Your task to perform on an android device: move a message to another label in the gmail app Image 0: 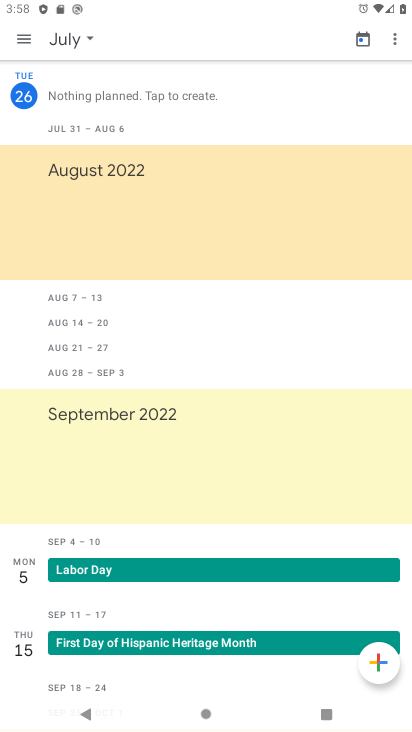
Step 0: press home button
Your task to perform on an android device: move a message to another label in the gmail app Image 1: 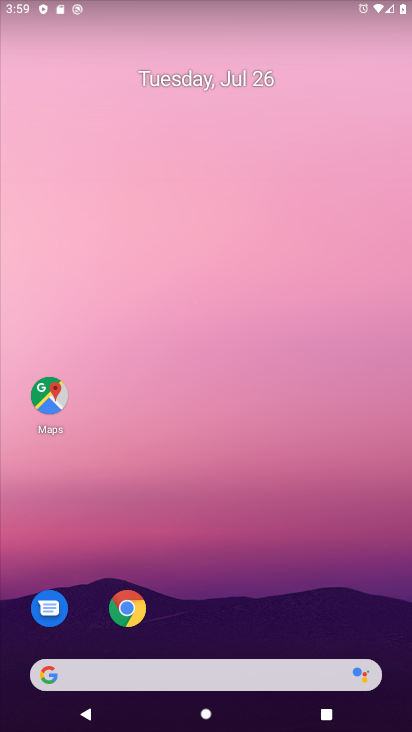
Step 1: drag from (392, 529) to (378, 80)
Your task to perform on an android device: move a message to another label in the gmail app Image 2: 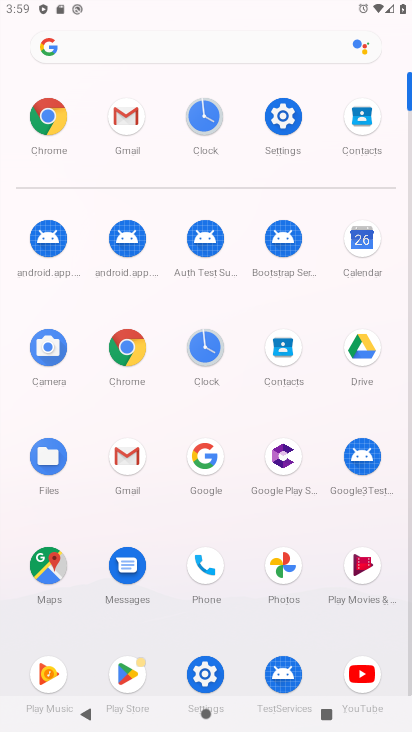
Step 2: click (132, 458)
Your task to perform on an android device: move a message to another label in the gmail app Image 3: 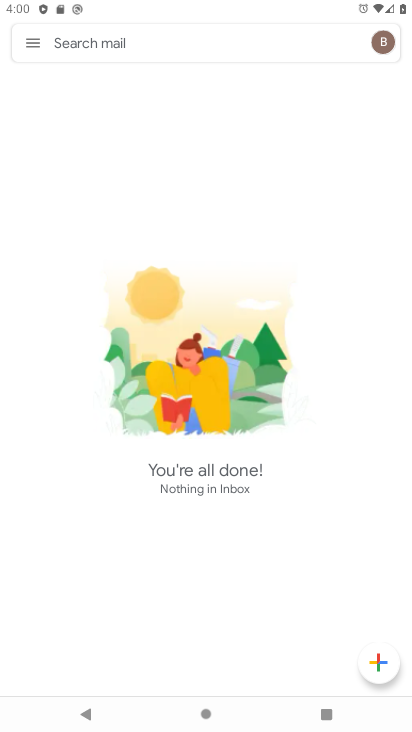
Step 3: click (35, 41)
Your task to perform on an android device: move a message to another label in the gmail app Image 4: 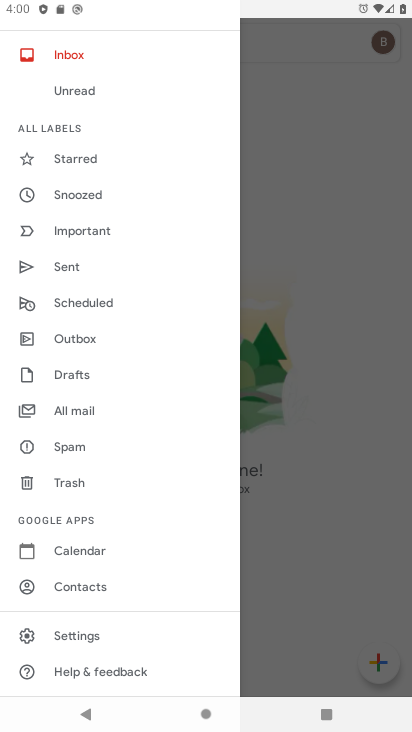
Step 4: click (326, 471)
Your task to perform on an android device: move a message to another label in the gmail app Image 5: 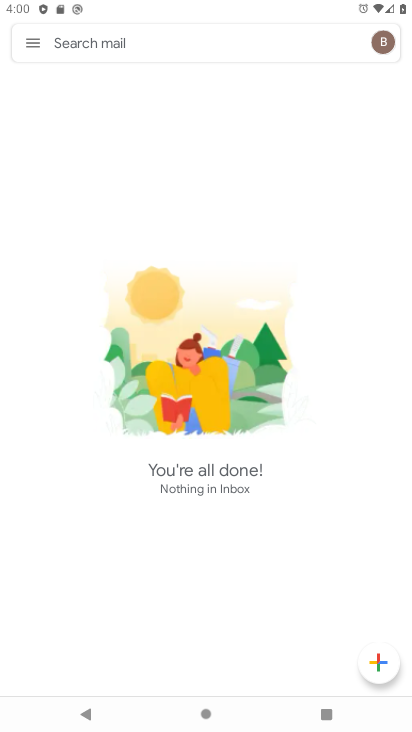
Step 5: task complete